Your task to perform on an android device: Open privacy settings Image 0: 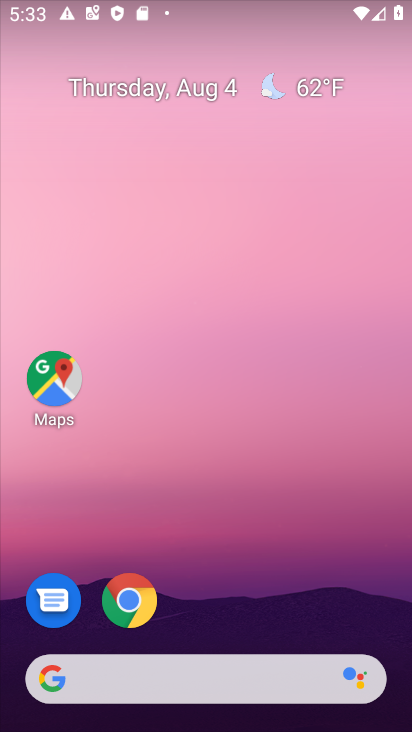
Step 0: drag from (179, 612) to (290, 72)
Your task to perform on an android device: Open privacy settings Image 1: 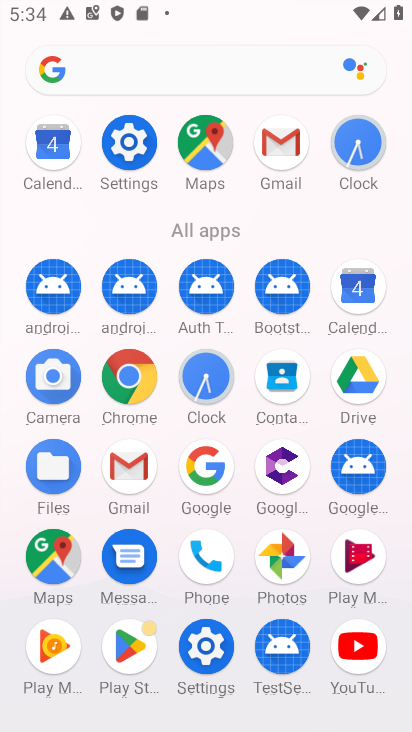
Step 1: click (136, 140)
Your task to perform on an android device: Open privacy settings Image 2: 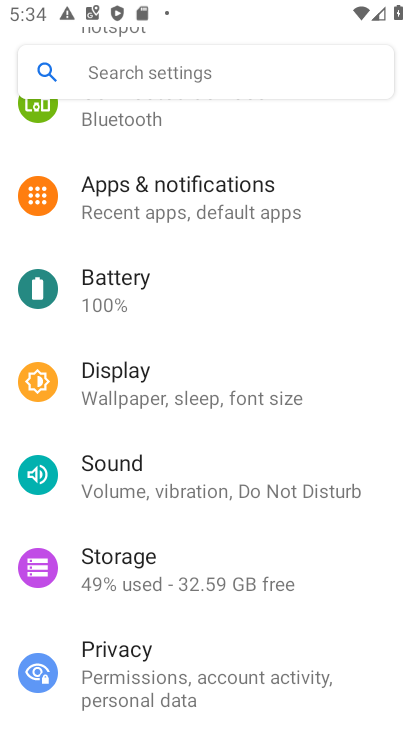
Step 2: click (168, 664)
Your task to perform on an android device: Open privacy settings Image 3: 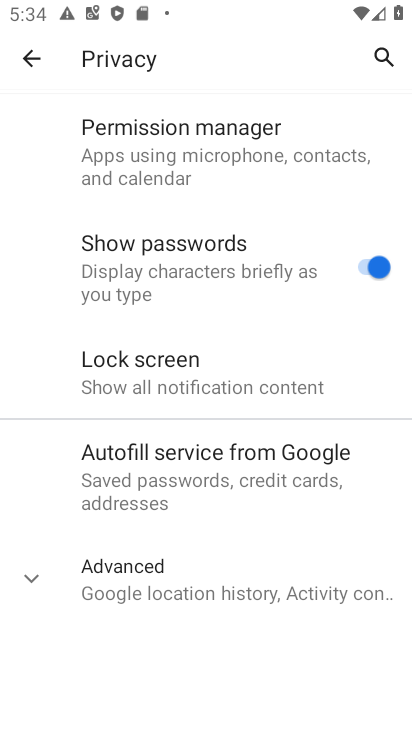
Step 3: task complete